Your task to perform on an android device: turn pop-ups on in chrome Image 0: 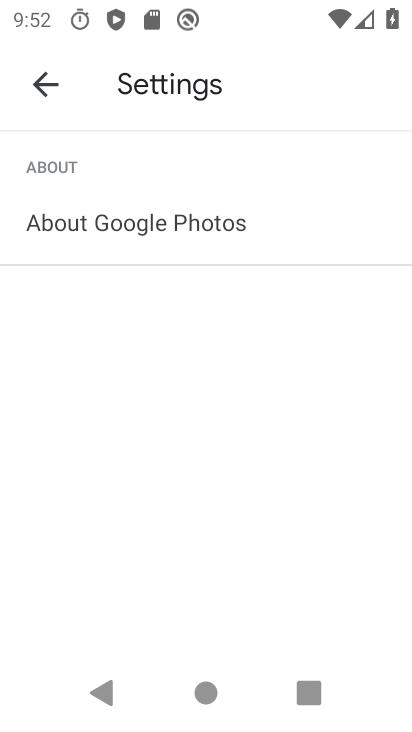
Step 0: click (35, 78)
Your task to perform on an android device: turn pop-ups on in chrome Image 1: 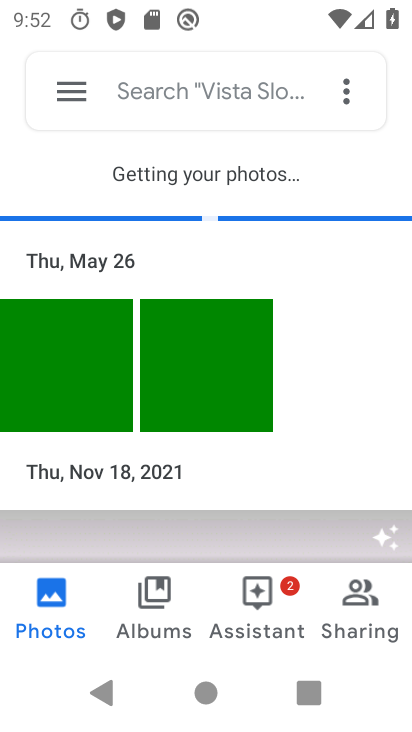
Step 1: press back button
Your task to perform on an android device: turn pop-ups on in chrome Image 2: 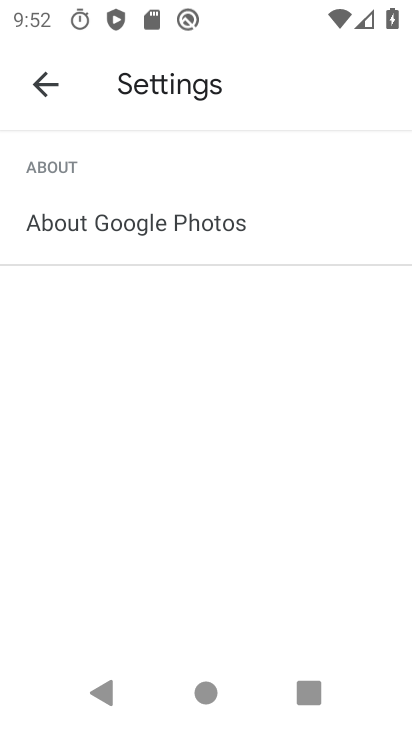
Step 2: click (48, 78)
Your task to perform on an android device: turn pop-ups on in chrome Image 3: 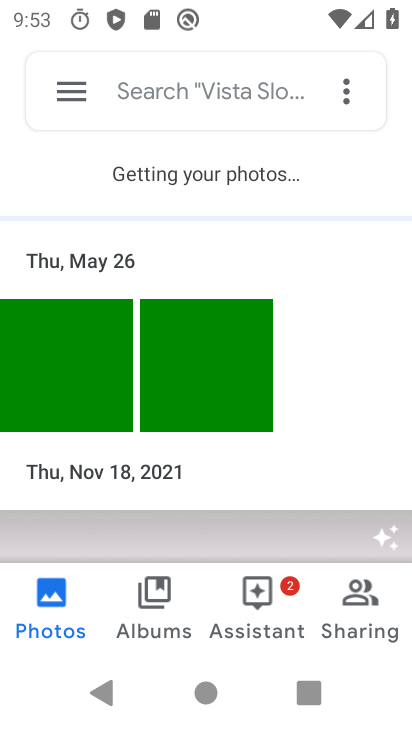
Step 3: press back button
Your task to perform on an android device: turn pop-ups on in chrome Image 4: 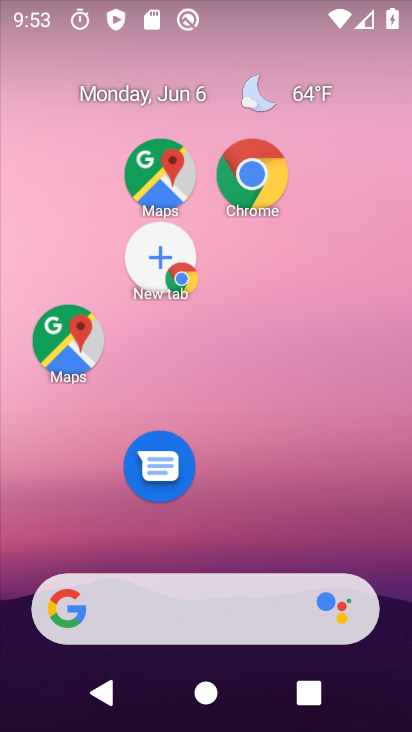
Step 4: press home button
Your task to perform on an android device: turn pop-ups on in chrome Image 5: 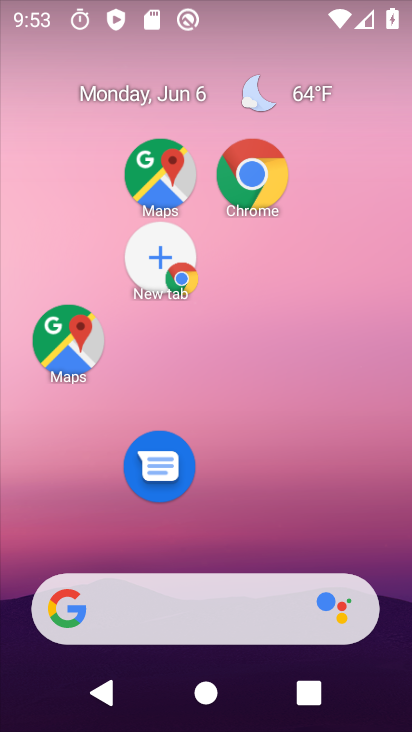
Step 5: drag from (255, 251) to (245, 158)
Your task to perform on an android device: turn pop-ups on in chrome Image 6: 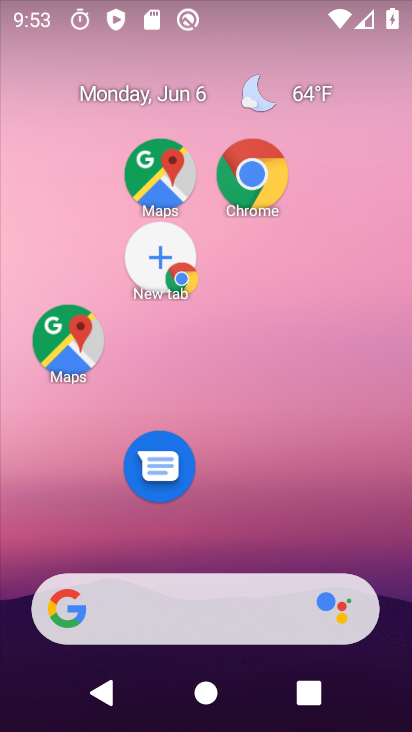
Step 6: drag from (241, 601) to (205, 322)
Your task to perform on an android device: turn pop-ups on in chrome Image 7: 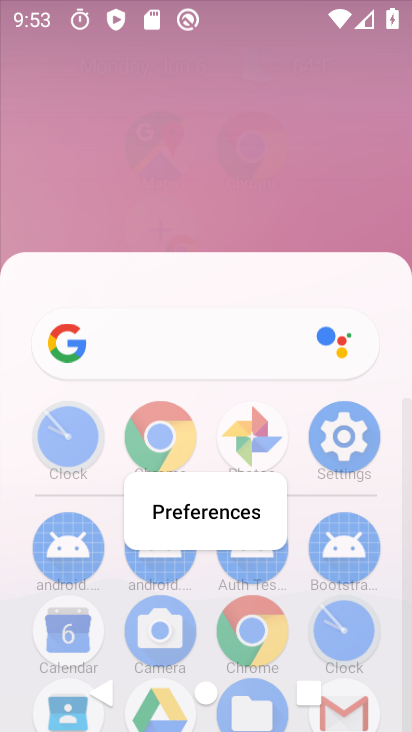
Step 7: click (214, 332)
Your task to perform on an android device: turn pop-ups on in chrome Image 8: 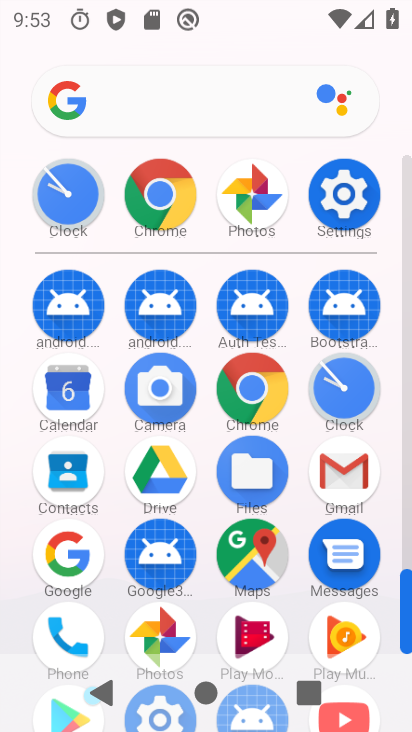
Step 8: drag from (217, 550) to (182, 300)
Your task to perform on an android device: turn pop-ups on in chrome Image 9: 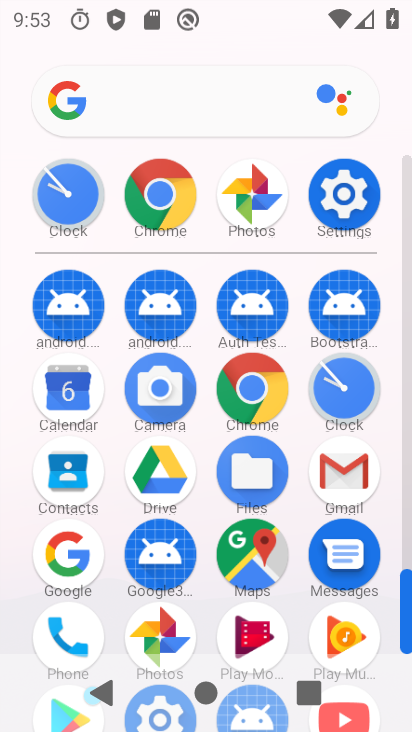
Step 9: drag from (282, 582) to (214, 167)
Your task to perform on an android device: turn pop-ups on in chrome Image 10: 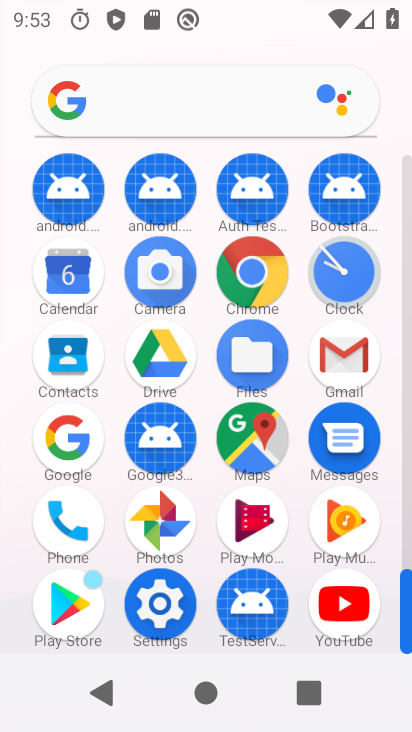
Step 10: click (211, 92)
Your task to perform on an android device: turn pop-ups on in chrome Image 11: 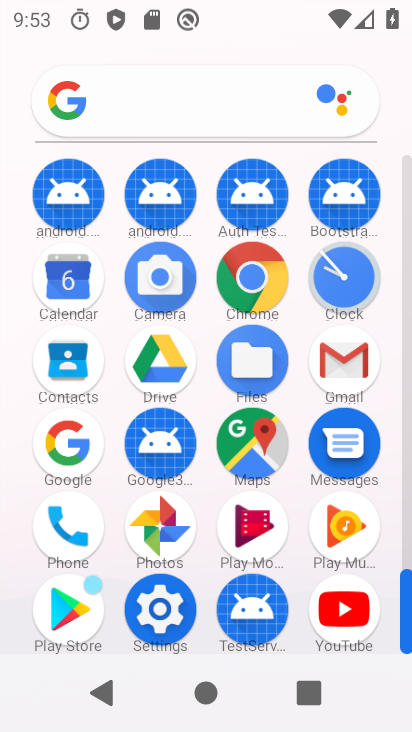
Step 11: drag from (325, 539) to (228, 61)
Your task to perform on an android device: turn pop-ups on in chrome Image 12: 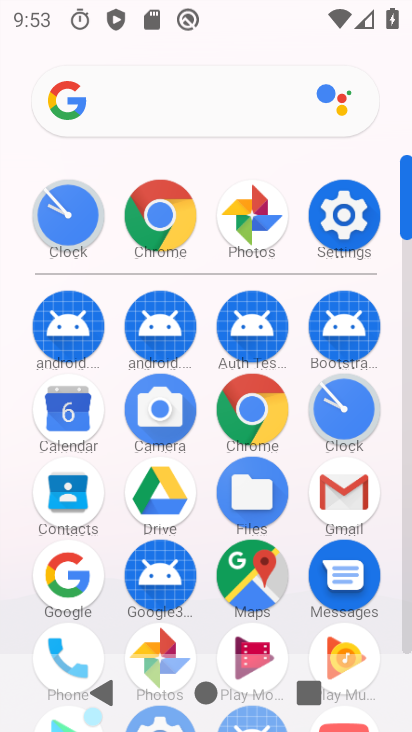
Step 12: drag from (212, 482) to (252, 149)
Your task to perform on an android device: turn pop-ups on in chrome Image 13: 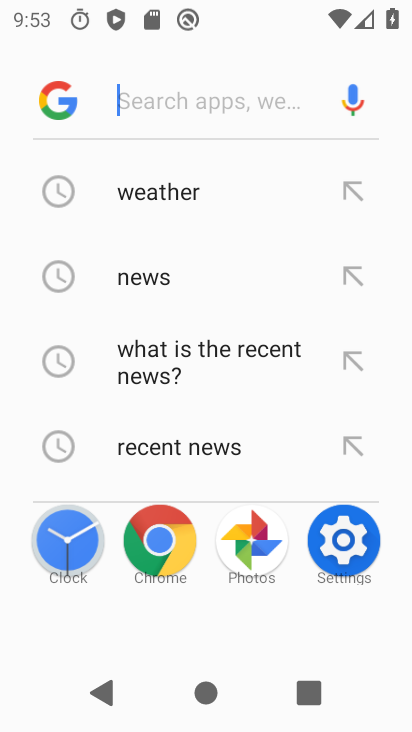
Step 13: click (165, 549)
Your task to perform on an android device: turn pop-ups on in chrome Image 14: 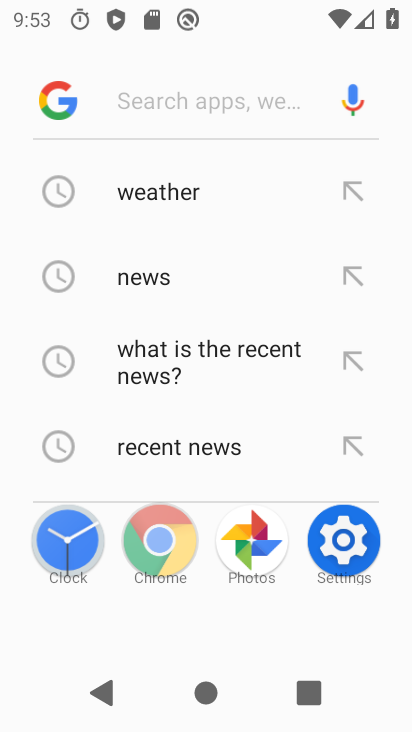
Step 14: click (170, 546)
Your task to perform on an android device: turn pop-ups on in chrome Image 15: 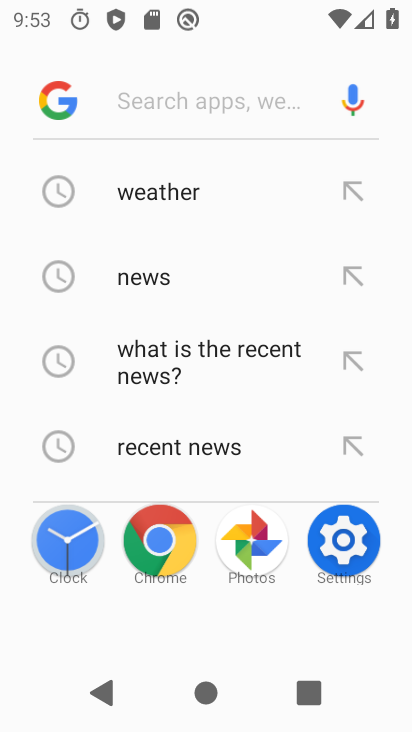
Step 15: click (170, 546)
Your task to perform on an android device: turn pop-ups on in chrome Image 16: 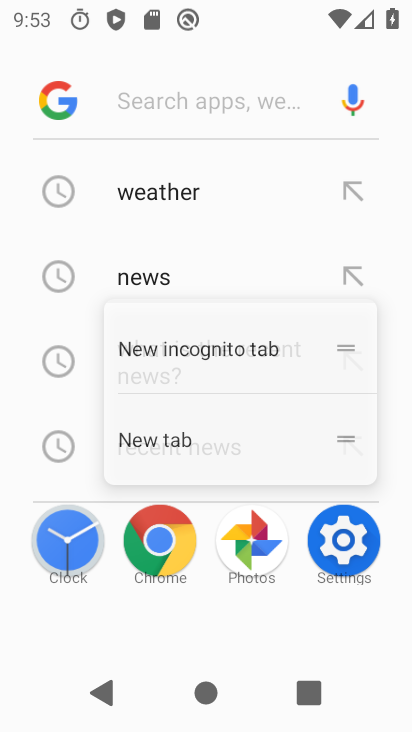
Step 16: click (168, 546)
Your task to perform on an android device: turn pop-ups on in chrome Image 17: 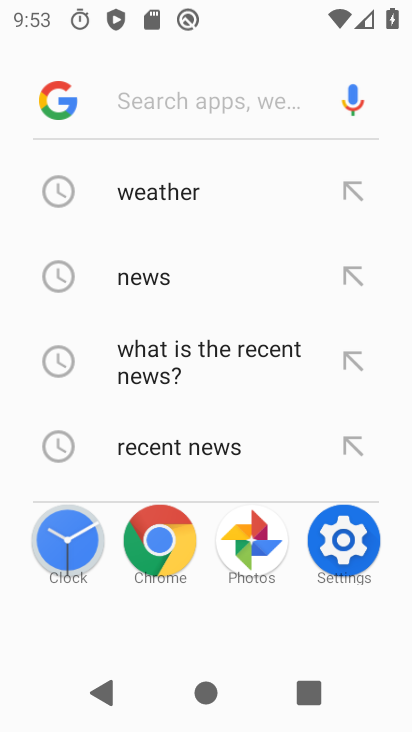
Step 17: click (168, 546)
Your task to perform on an android device: turn pop-ups on in chrome Image 18: 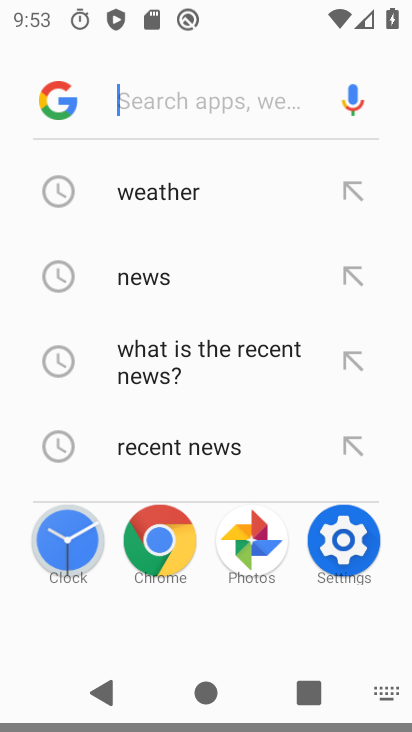
Step 18: click (168, 546)
Your task to perform on an android device: turn pop-ups on in chrome Image 19: 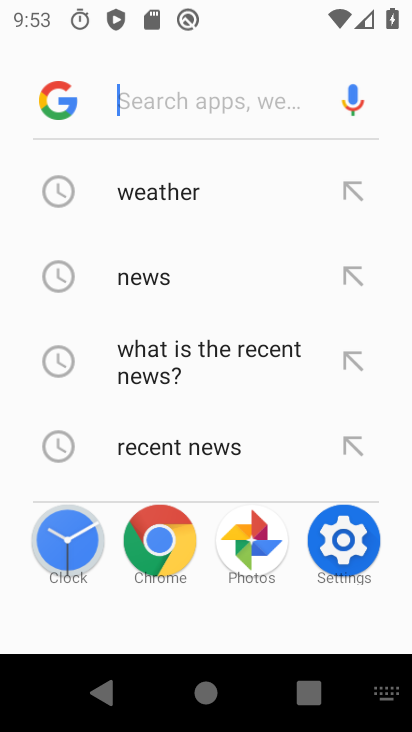
Step 19: click (168, 546)
Your task to perform on an android device: turn pop-ups on in chrome Image 20: 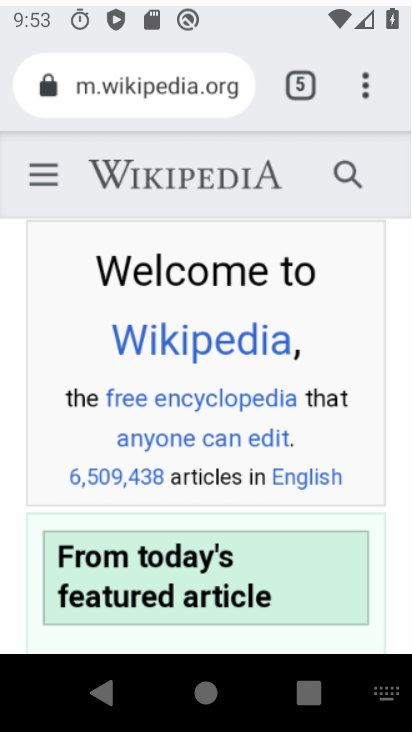
Step 20: click (168, 546)
Your task to perform on an android device: turn pop-ups on in chrome Image 21: 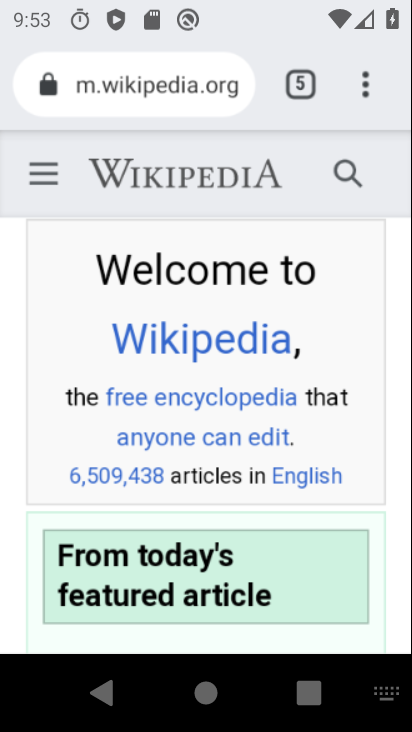
Step 21: click (168, 546)
Your task to perform on an android device: turn pop-ups on in chrome Image 22: 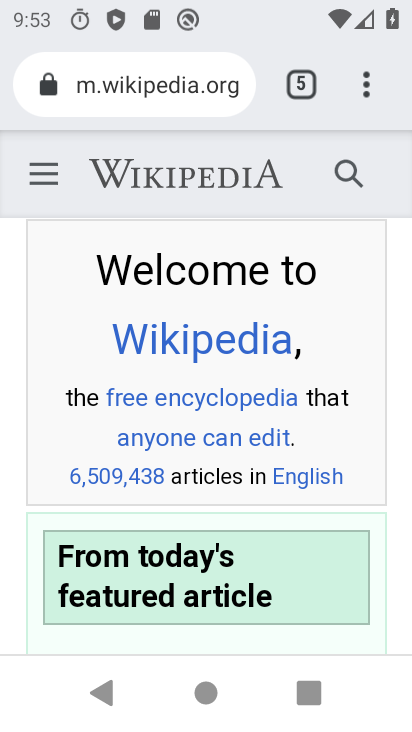
Step 22: drag from (362, 87) to (77, 518)
Your task to perform on an android device: turn pop-ups on in chrome Image 23: 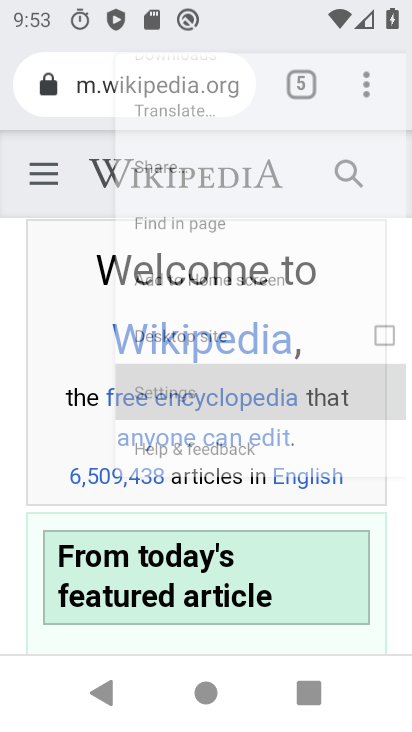
Step 23: click (78, 519)
Your task to perform on an android device: turn pop-ups on in chrome Image 24: 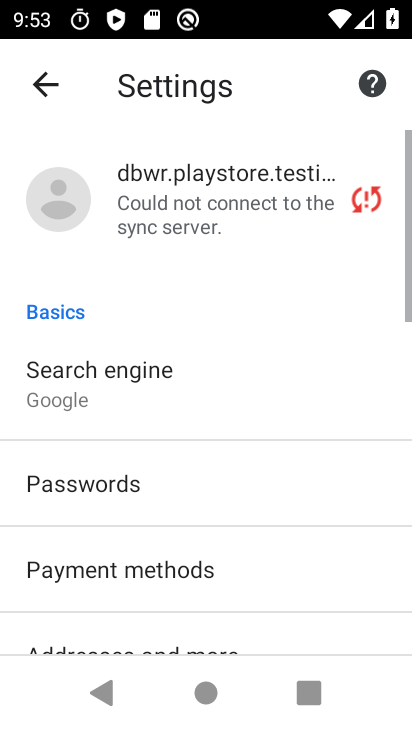
Step 24: drag from (111, 489) to (97, 169)
Your task to perform on an android device: turn pop-ups on in chrome Image 25: 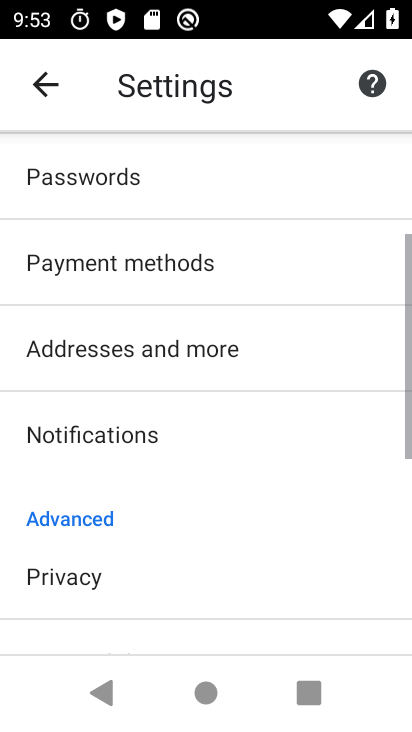
Step 25: drag from (85, 453) to (85, 234)
Your task to perform on an android device: turn pop-ups on in chrome Image 26: 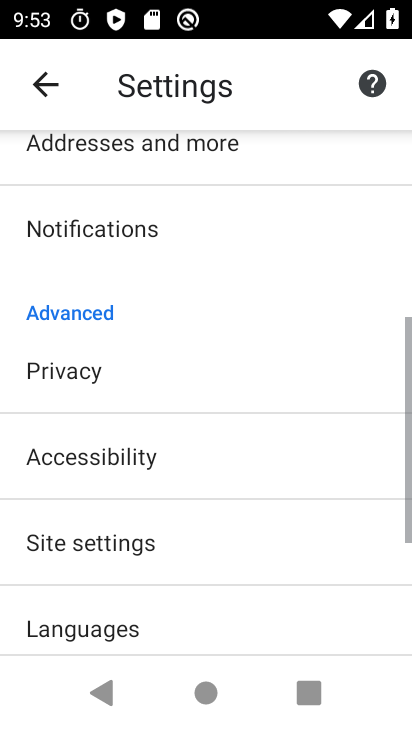
Step 26: drag from (148, 415) to (148, 184)
Your task to perform on an android device: turn pop-ups on in chrome Image 27: 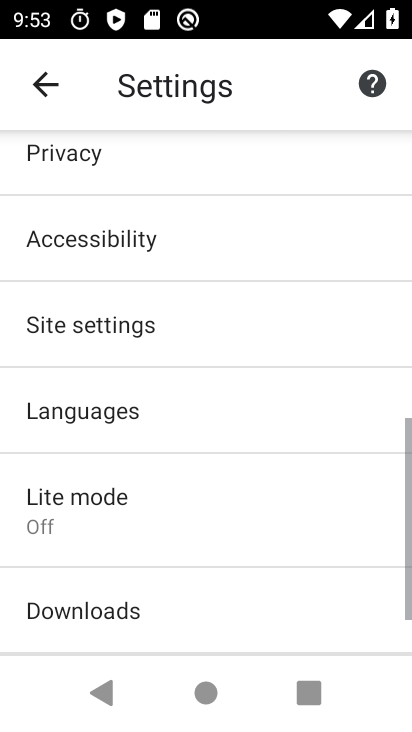
Step 27: drag from (128, 600) to (128, 298)
Your task to perform on an android device: turn pop-ups on in chrome Image 28: 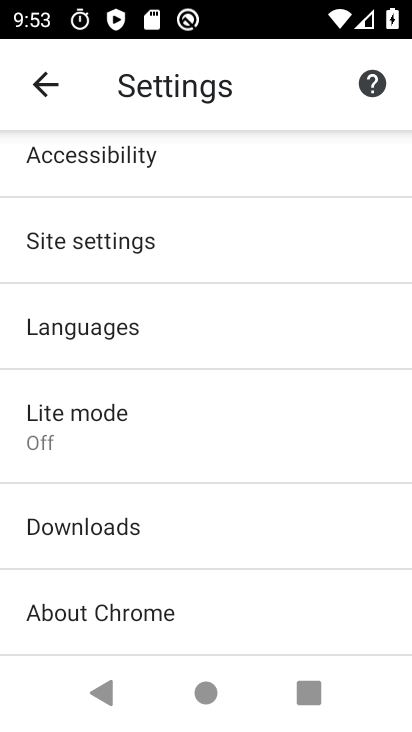
Step 28: click (94, 242)
Your task to perform on an android device: turn pop-ups on in chrome Image 29: 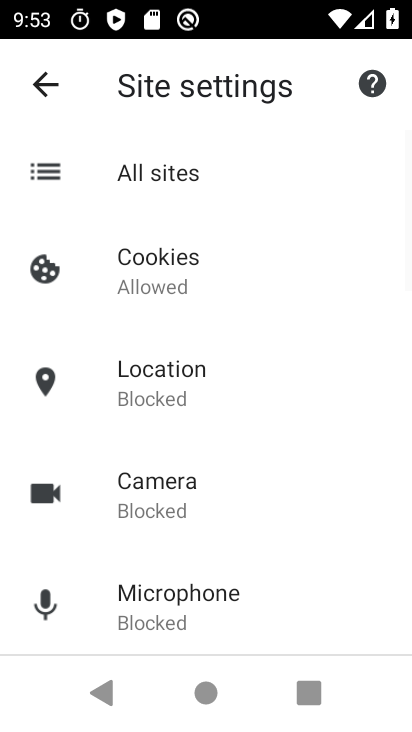
Step 29: drag from (126, 516) to (121, 334)
Your task to perform on an android device: turn pop-ups on in chrome Image 30: 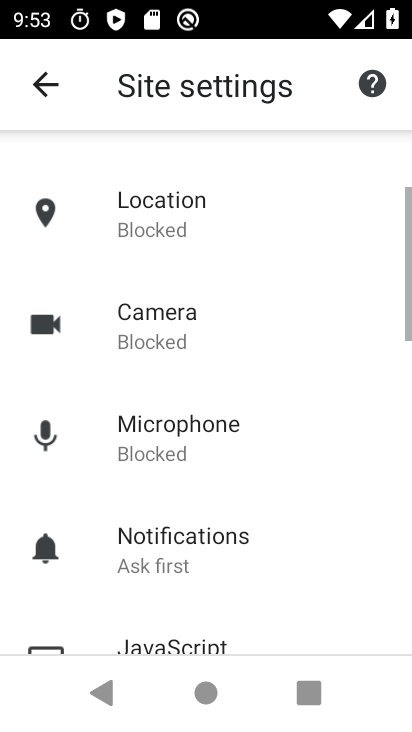
Step 30: drag from (160, 577) to (154, 264)
Your task to perform on an android device: turn pop-ups on in chrome Image 31: 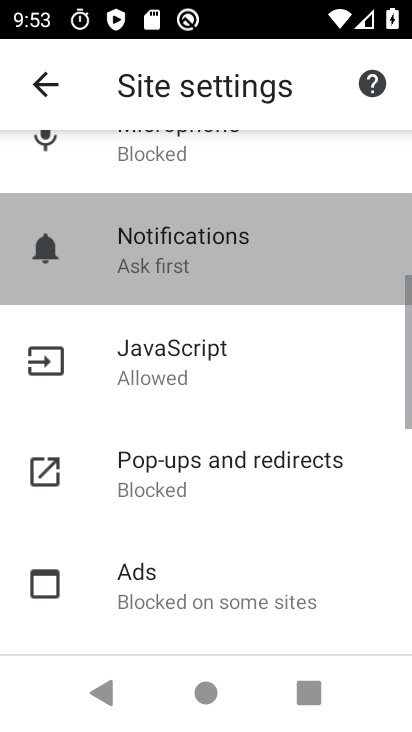
Step 31: drag from (154, 546) to (151, 306)
Your task to perform on an android device: turn pop-ups on in chrome Image 32: 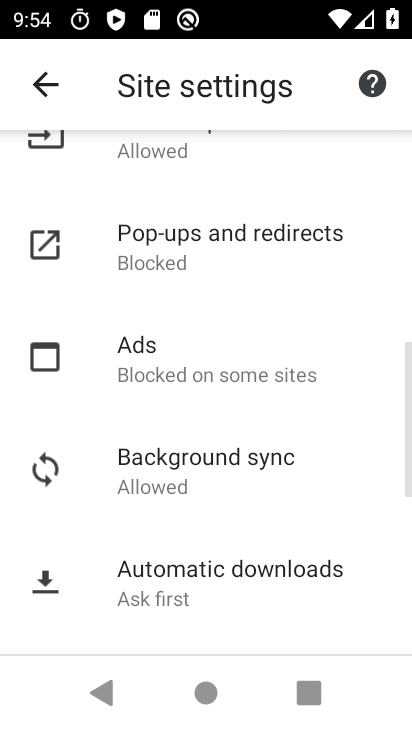
Step 32: click (169, 253)
Your task to perform on an android device: turn pop-ups on in chrome Image 33: 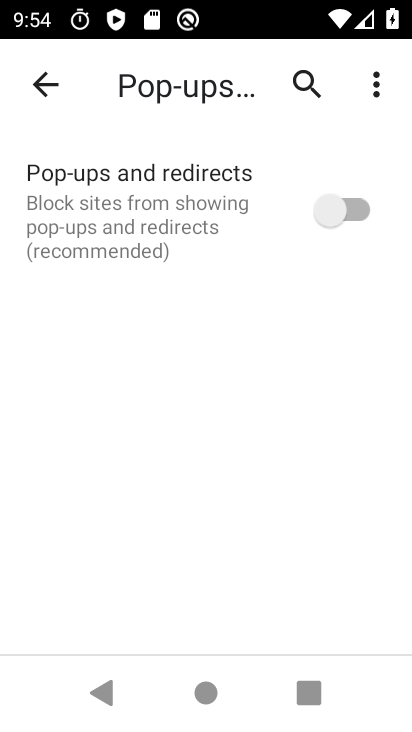
Step 33: click (328, 204)
Your task to perform on an android device: turn pop-ups on in chrome Image 34: 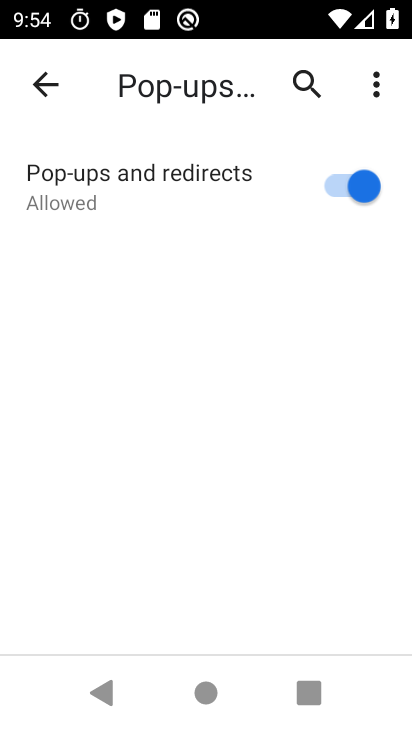
Step 34: task complete